Your task to perform on an android device: Go to Google Image 0: 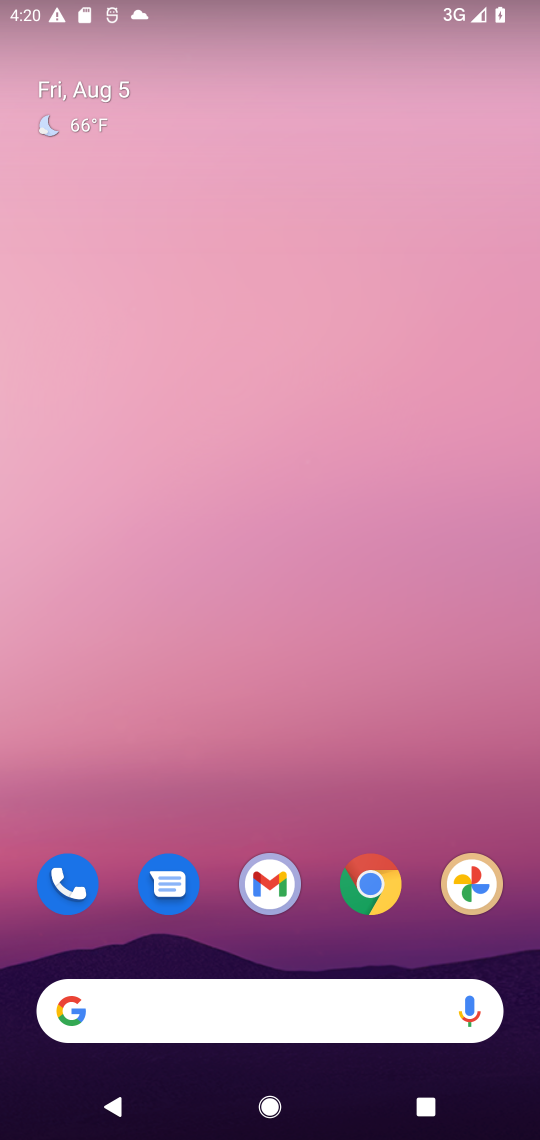
Step 0: drag from (468, 951) to (249, 82)
Your task to perform on an android device: Go to Google Image 1: 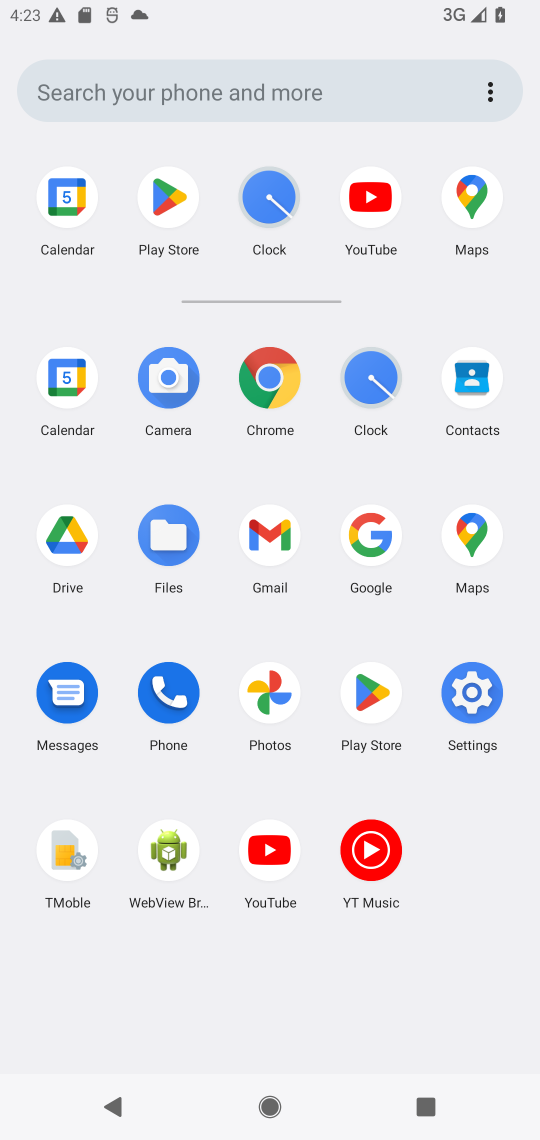
Step 1: click (358, 544)
Your task to perform on an android device: Go to Google Image 2: 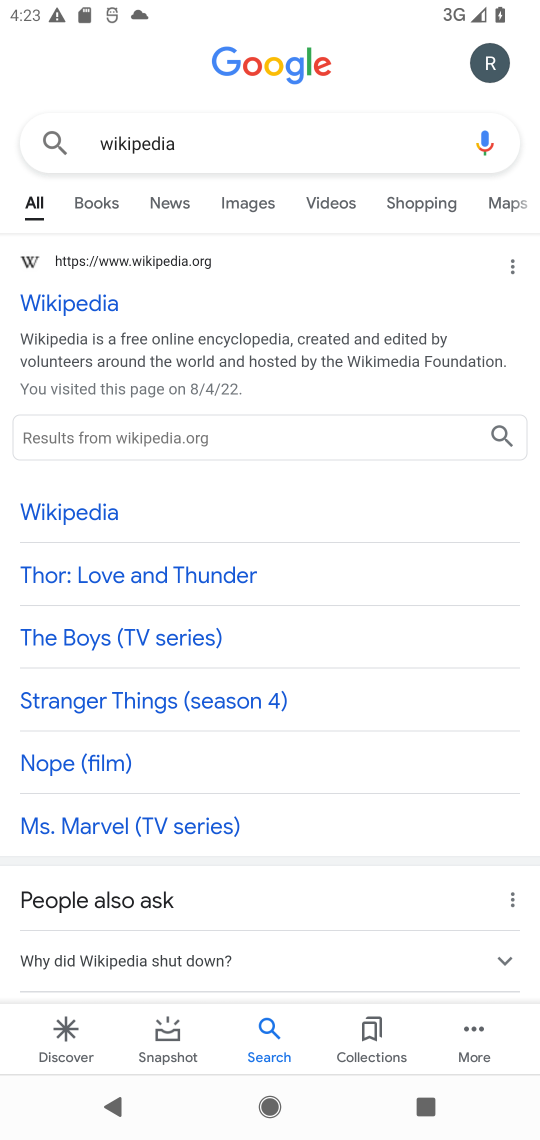
Step 2: task complete